Your task to perform on an android device: Go to Reddit.com Image 0: 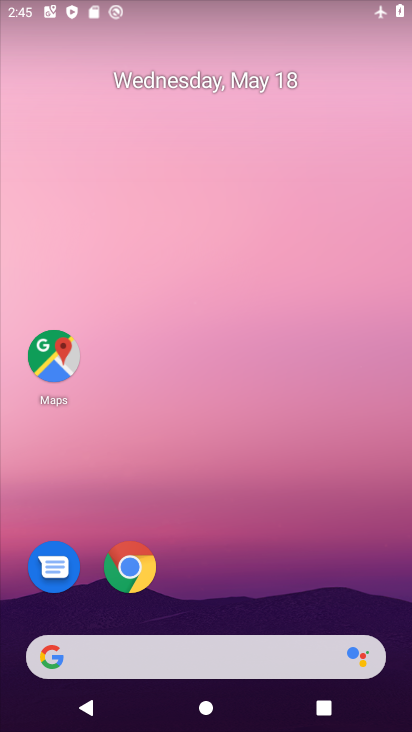
Step 0: click (137, 570)
Your task to perform on an android device: Go to Reddit.com Image 1: 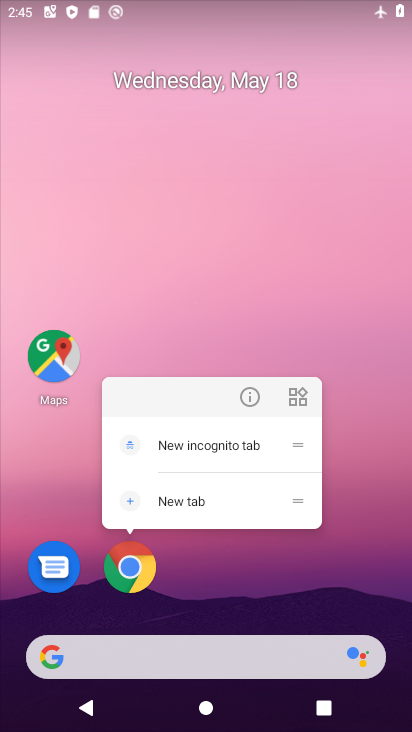
Step 1: click (129, 564)
Your task to perform on an android device: Go to Reddit.com Image 2: 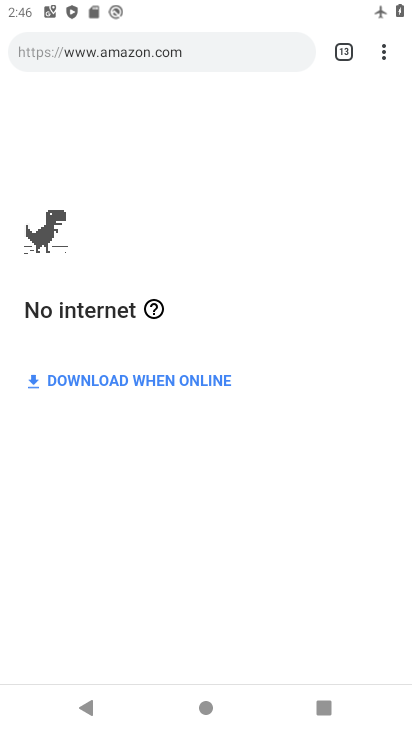
Step 2: click (378, 42)
Your task to perform on an android device: Go to Reddit.com Image 3: 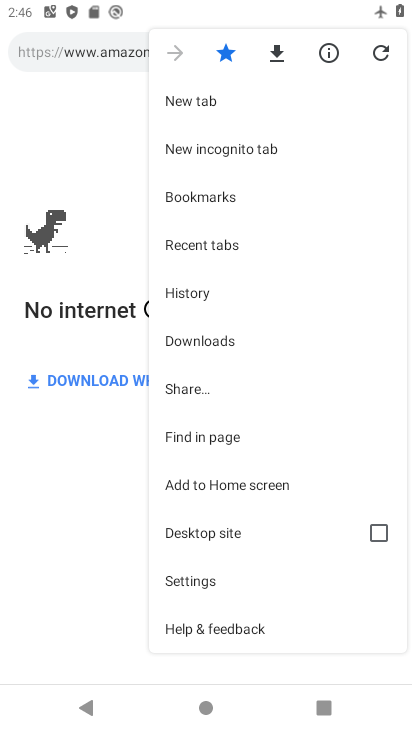
Step 3: click (196, 104)
Your task to perform on an android device: Go to Reddit.com Image 4: 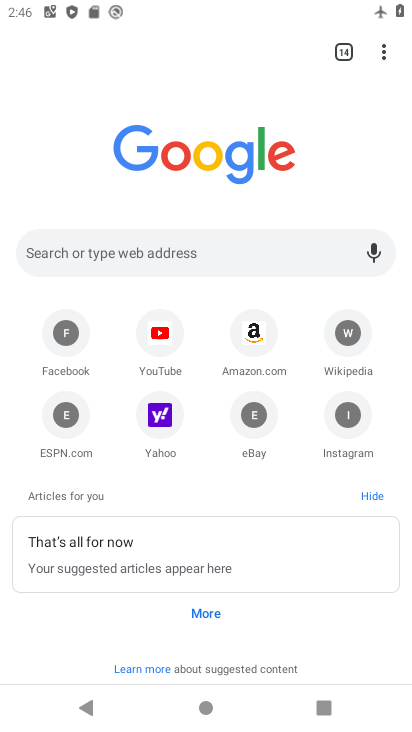
Step 4: click (80, 252)
Your task to perform on an android device: Go to Reddit.com Image 5: 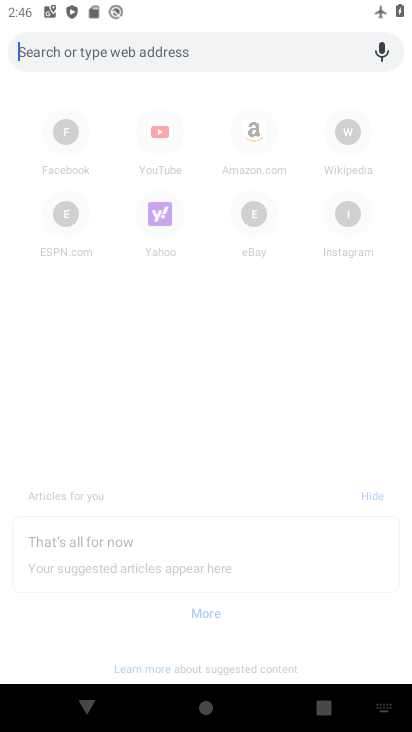
Step 5: type "Reddit.com"
Your task to perform on an android device: Go to Reddit.com Image 6: 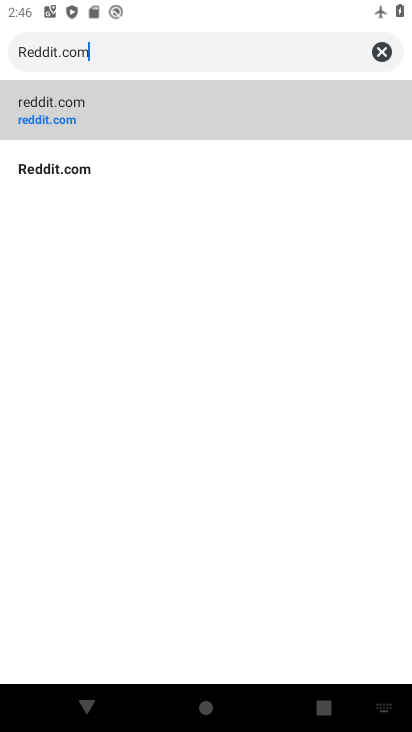
Step 6: click (156, 126)
Your task to perform on an android device: Go to Reddit.com Image 7: 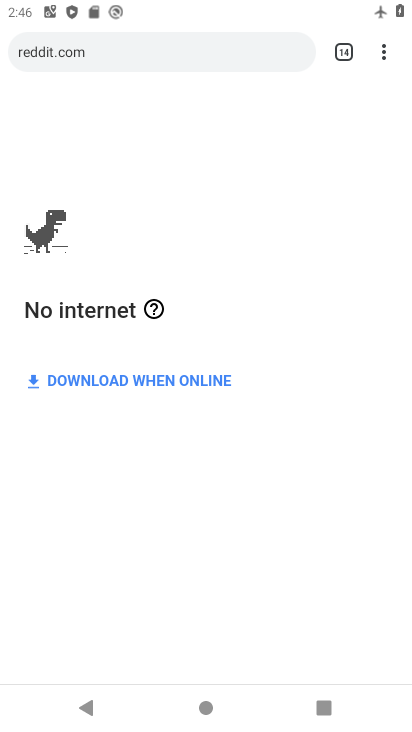
Step 7: task complete